Your task to perform on an android device: Open the stopwatch Image 0: 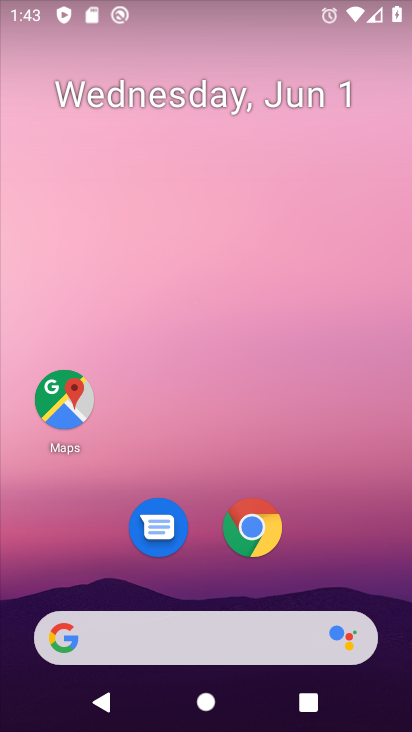
Step 0: drag from (376, 573) to (329, 78)
Your task to perform on an android device: Open the stopwatch Image 1: 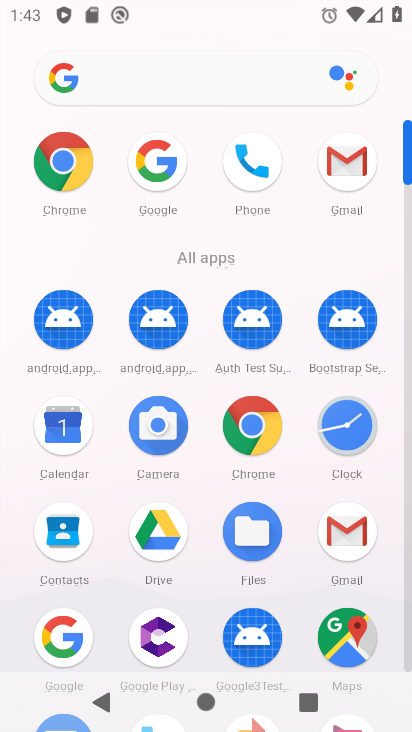
Step 1: click (357, 412)
Your task to perform on an android device: Open the stopwatch Image 2: 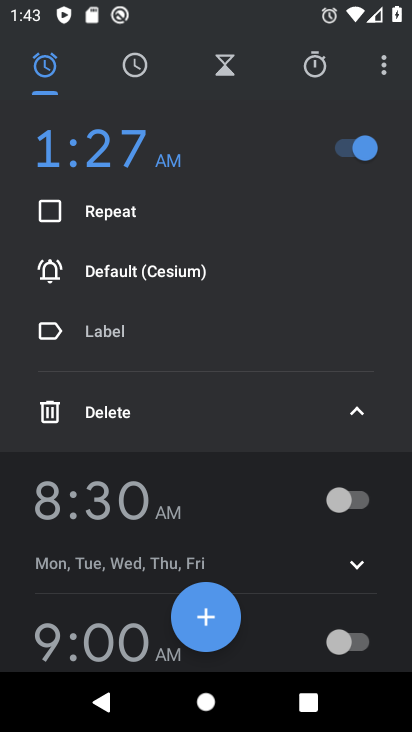
Step 2: click (316, 89)
Your task to perform on an android device: Open the stopwatch Image 3: 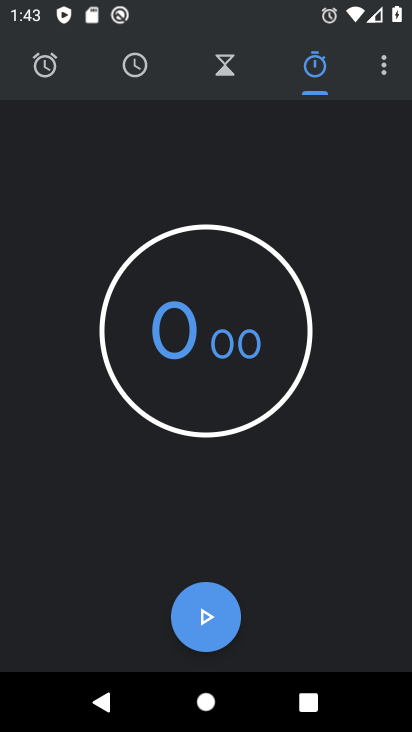
Step 3: task complete